Your task to perform on an android device: What's on my calendar today? Image 0: 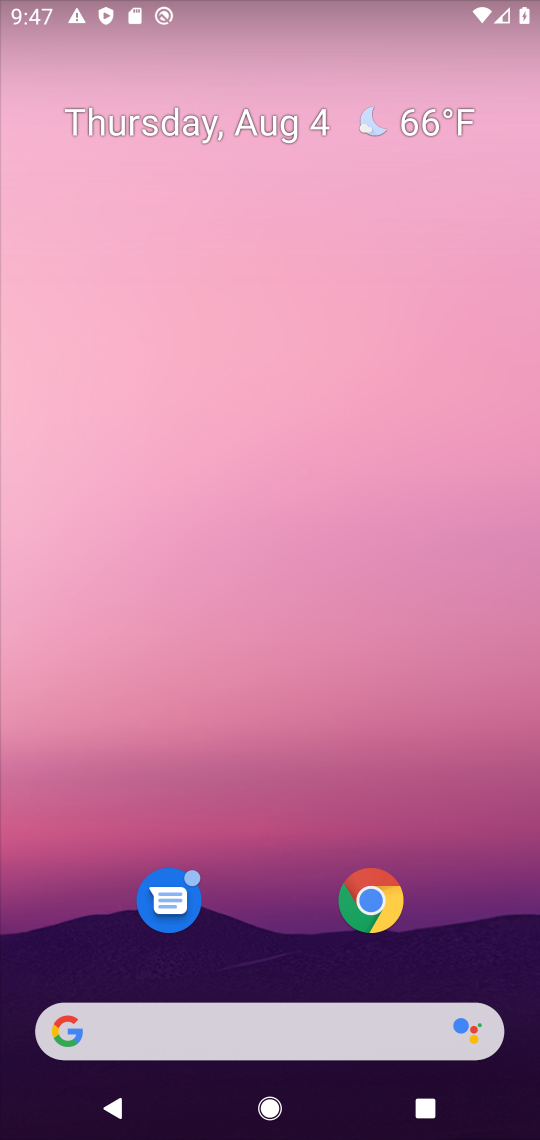
Step 0: drag from (448, 944) to (356, 168)
Your task to perform on an android device: What's on my calendar today? Image 1: 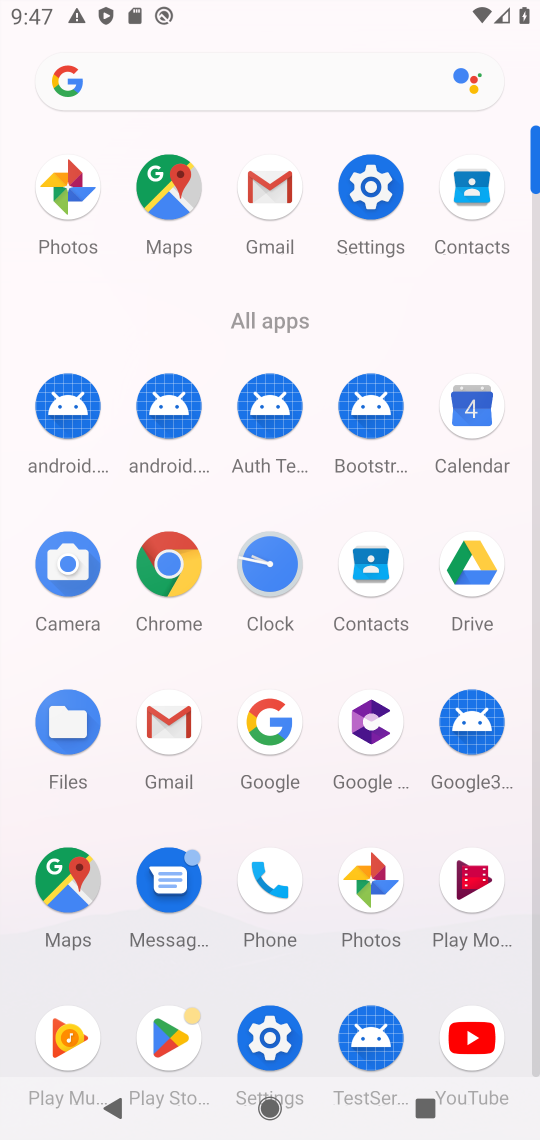
Step 1: click (495, 423)
Your task to perform on an android device: What's on my calendar today? Image 2: 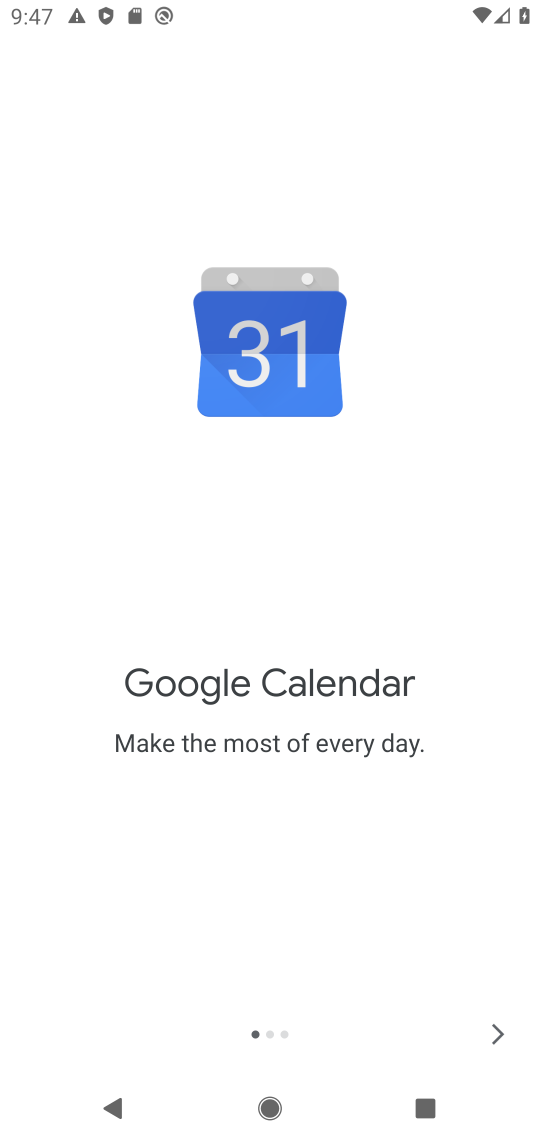
Step 2: click (499, 1024)
Your task to perform on an android device: What's on my calendar today? Image 3: 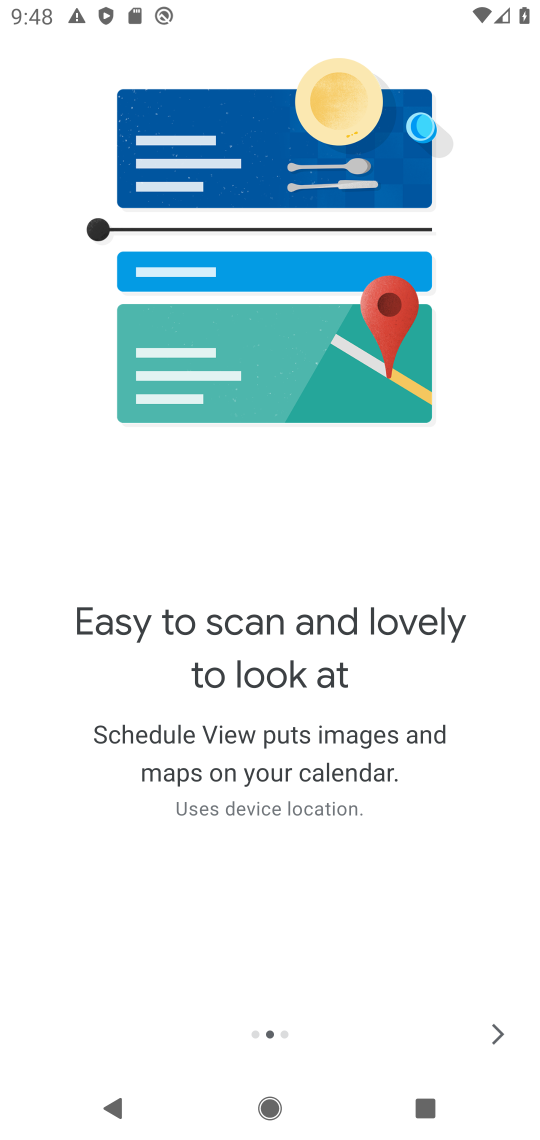
Step 3: click (497, 1033)
Your task to perform on an android device: What's on my calendar today? Image 4: 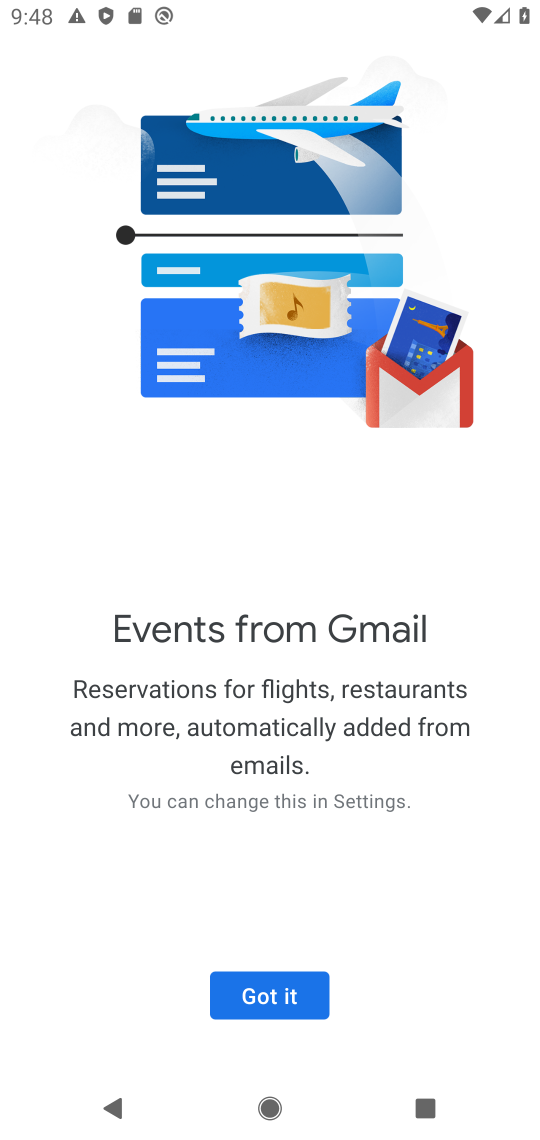
Step 4: click (280, 998)
Your task to perform on an android device: What's on my calendar today? Image 5: 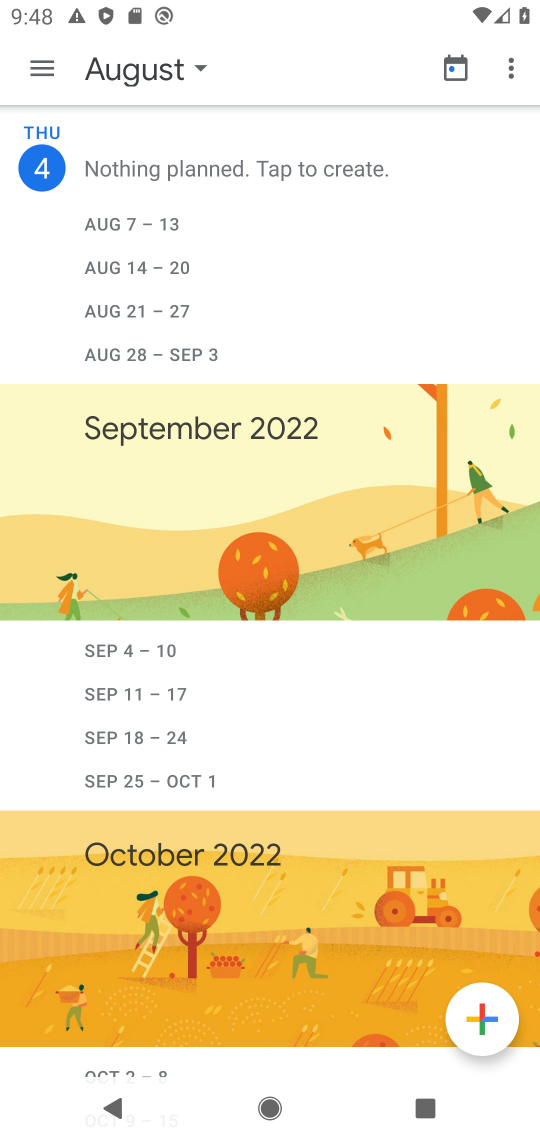
Step 5: click (38, 65)
Your task to perform on an android device: What's on my calendar today? Image 6: 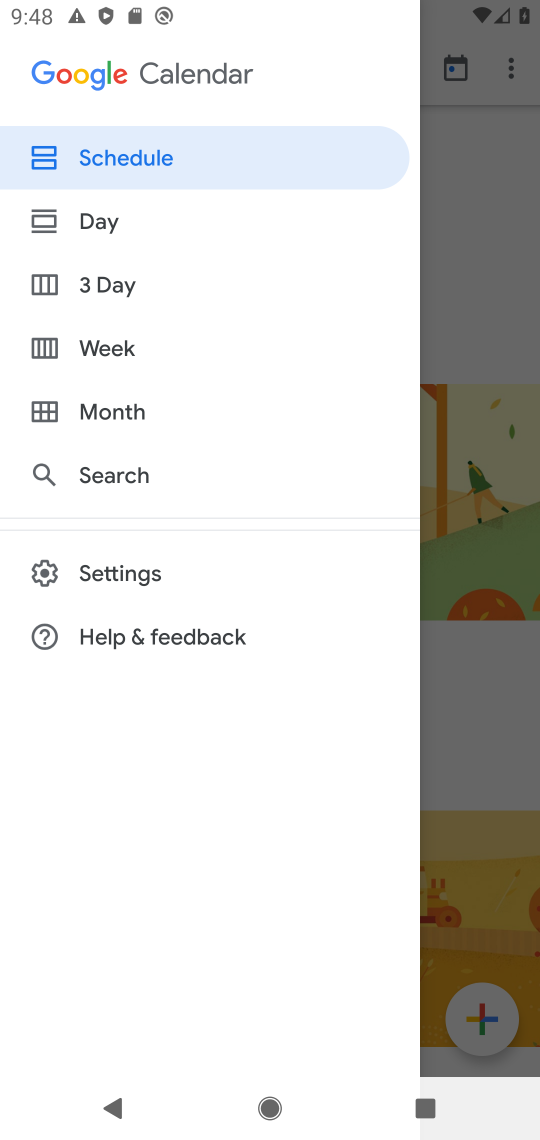
Step 6: click (114, 216)
Your task to perform on an android device: What's on my calendar today? Image 7: 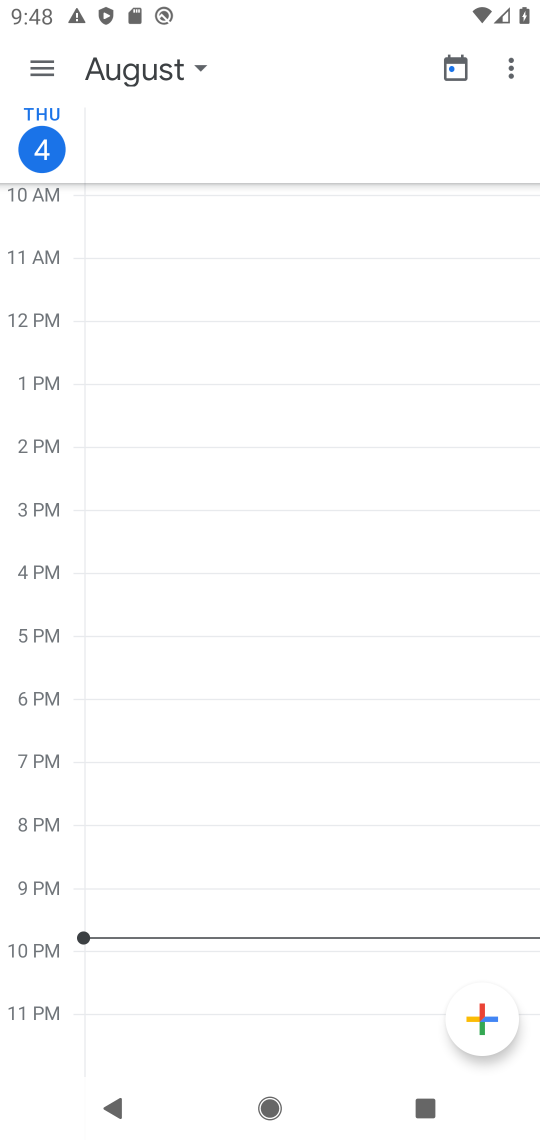
Step 7: click (430, 534)
Your task to perform on an android device: What's on my calendar today? Image 8: 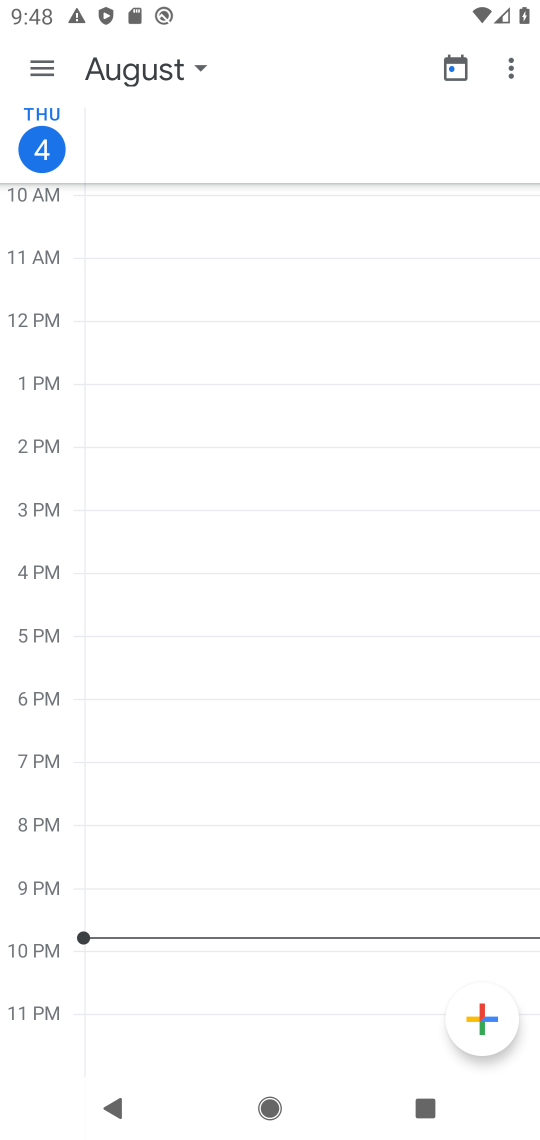
Step 8: task complete